Your task to perform on an android device: empty trash in google photos Image 0: 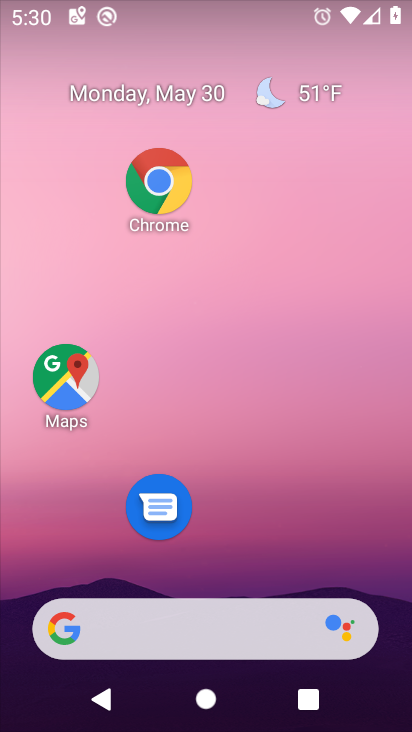
Step 0: drag from (267, 561) to (234, 64)
Your task to perform on an android device: empty trash in google photos Image 1: 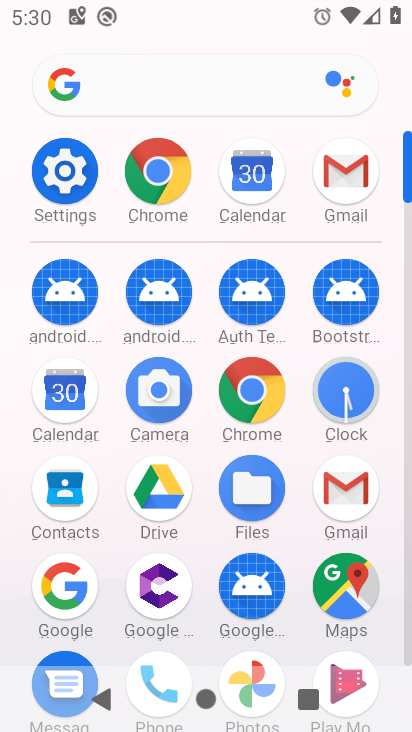
Step 1: click (402, 635)
Your task to perform on an android device: empty trash in google photos Image 2: 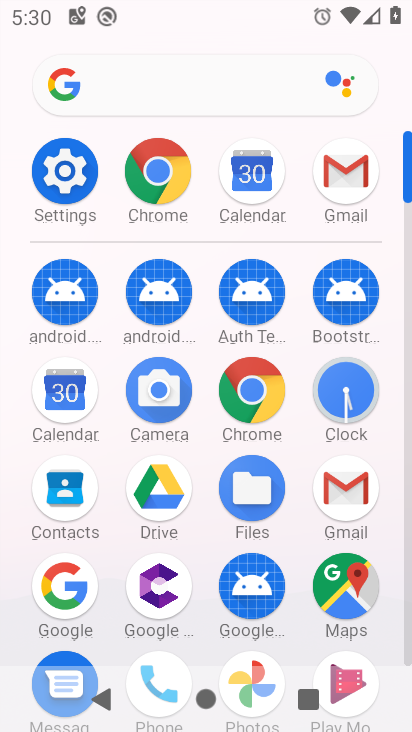
Step 2: click (406, 637)
Your task to perform on an android device: empty trash in google photos Image 3: 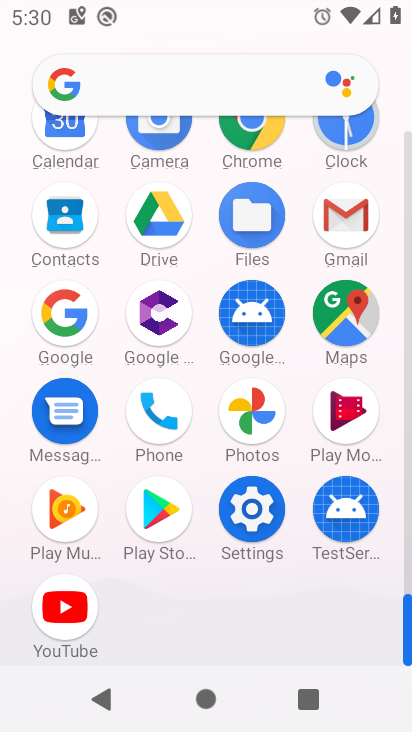
Step 3: click (271, 424)
Your task to perform on an android device: empty trash in google photos Image 4: 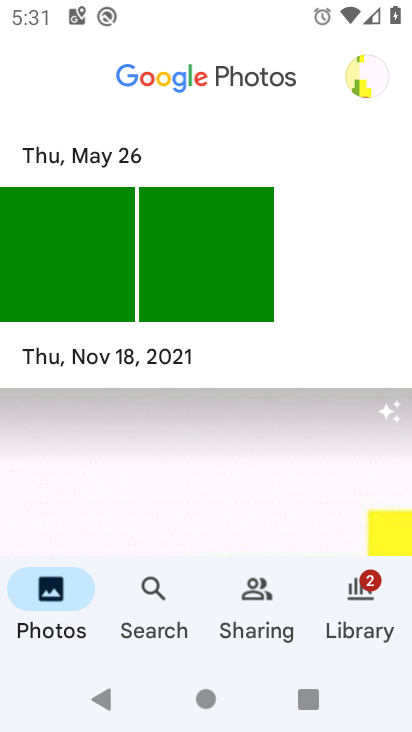
Step 4: click (384, 621)
Your task to perform on an android device: empty trash in google photos Image 5: 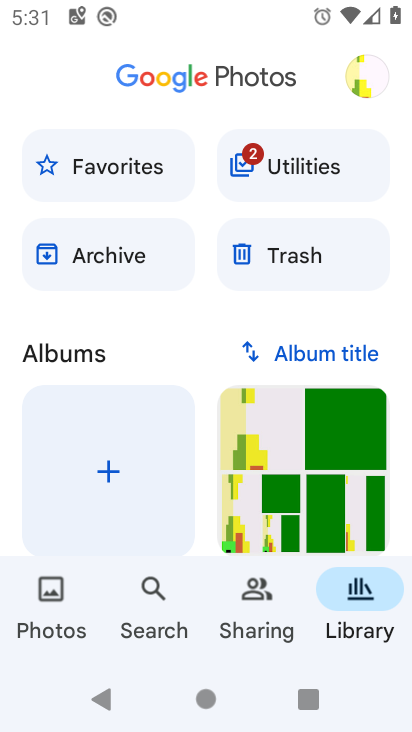
Step 5: click (356, 286)
Your task to perform on an android device: empty trash in google photos Image 6: 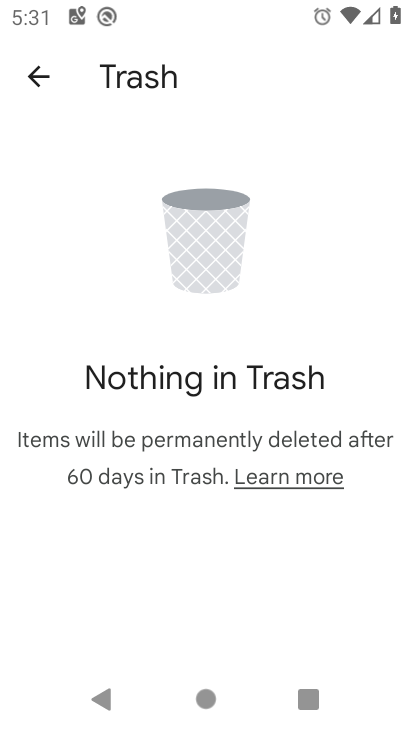
Step 6: task complete